Your task to perform on an android device: Open the phone app and click the voicemail tab. Image 0: 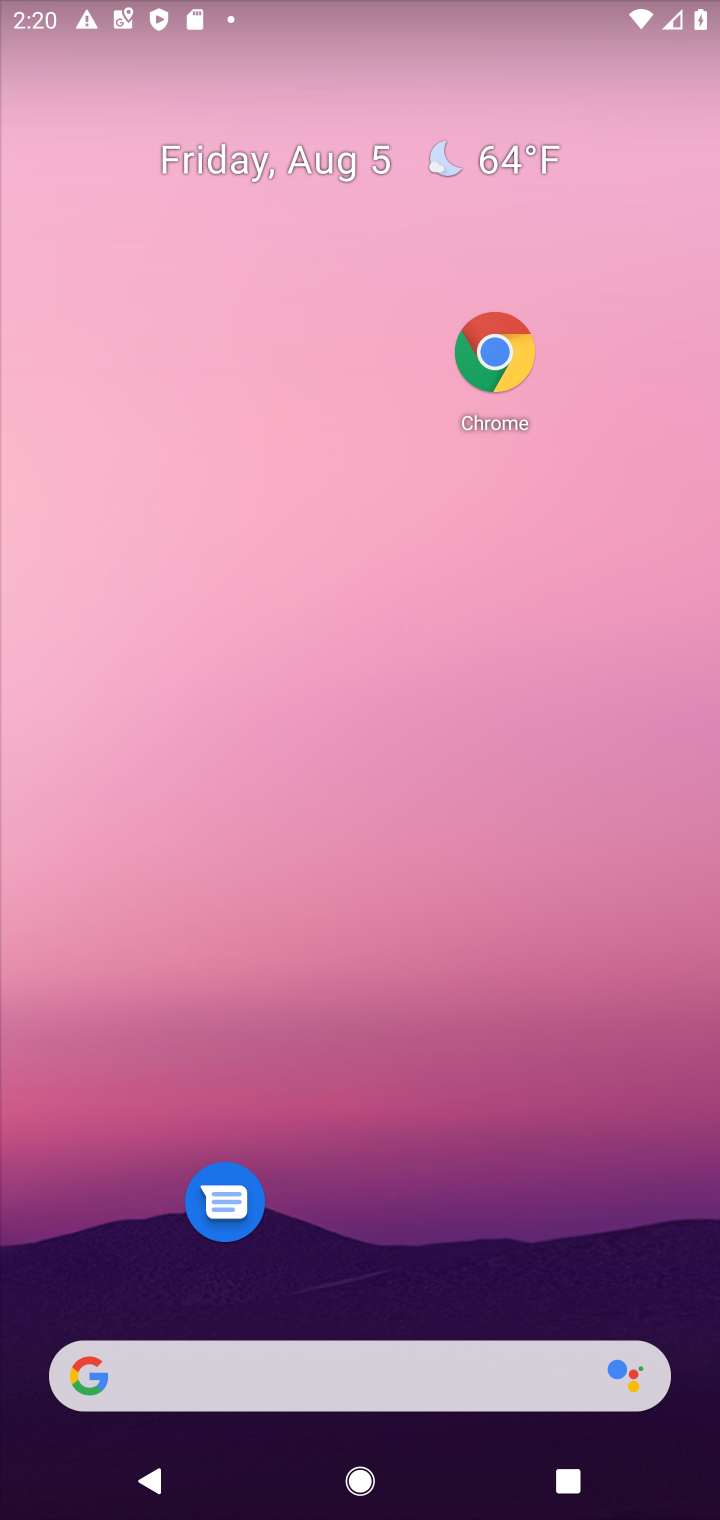
Step 0: press home button
Your task to perform on an android device: Open the phone app and click the voicemail tab. Image 1: 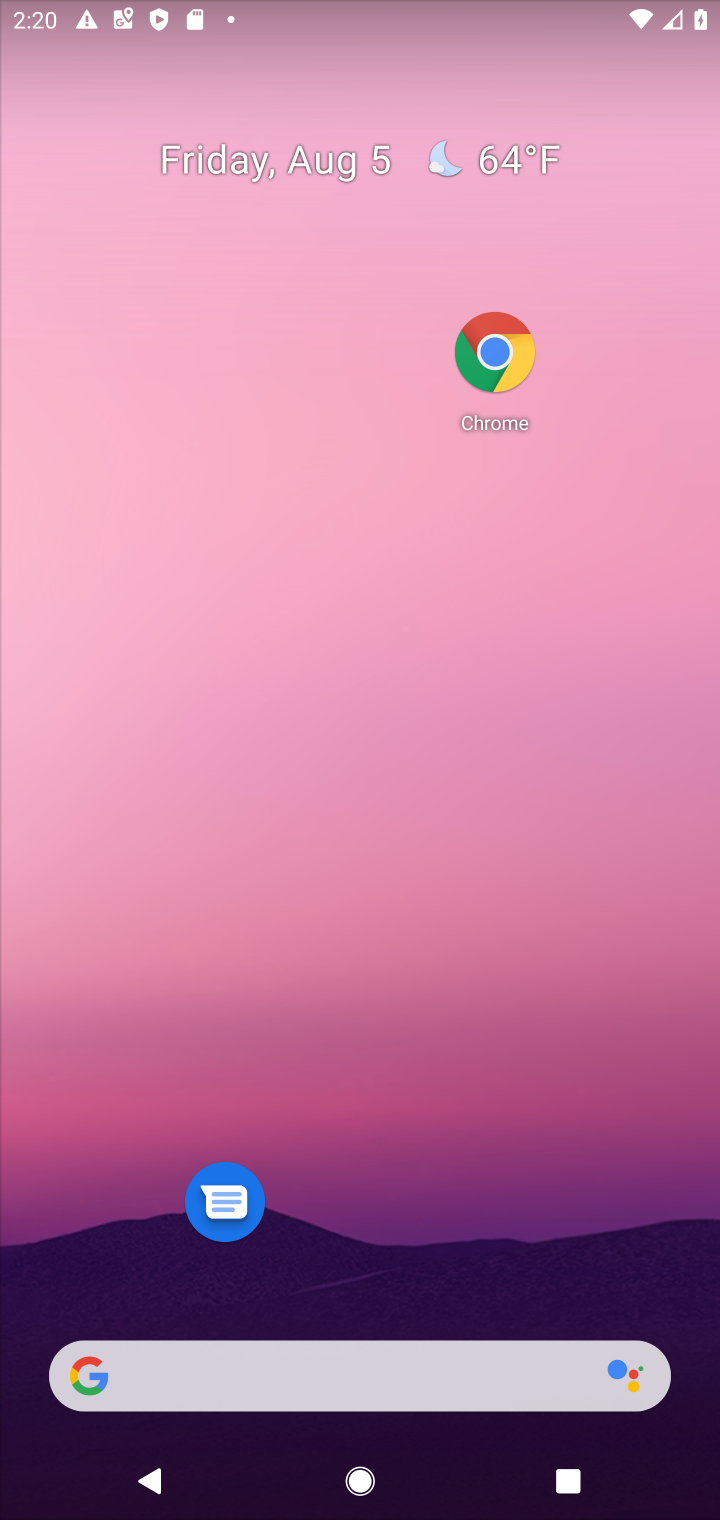
Step 1: drag from (311, 545) to (256, 65)
Your task to perform on an android device: Open the phone app and click the voicemail tab. Image 2: 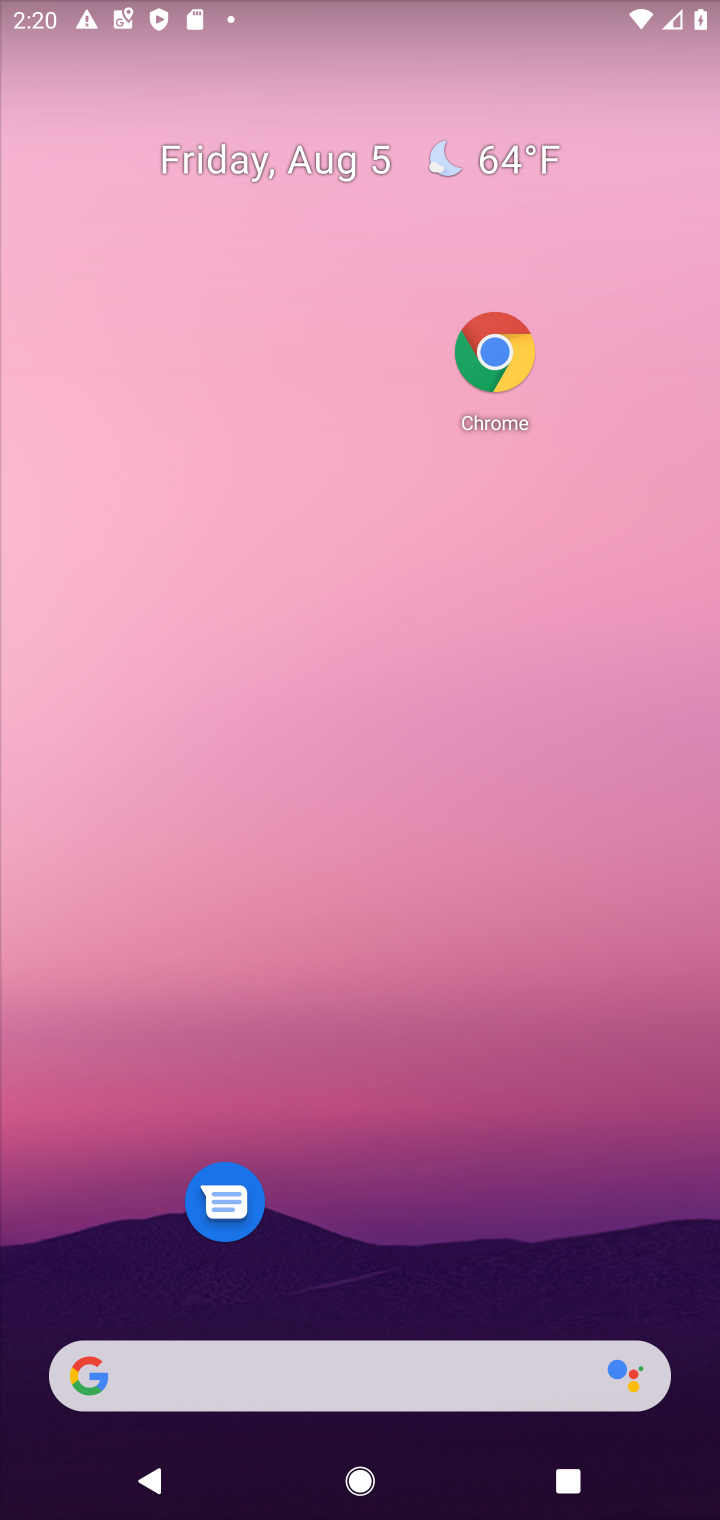
Step 2: click (322, 41)
Your task to perform on an android device: Open the phone app and click the voicemail tab. Image 3: 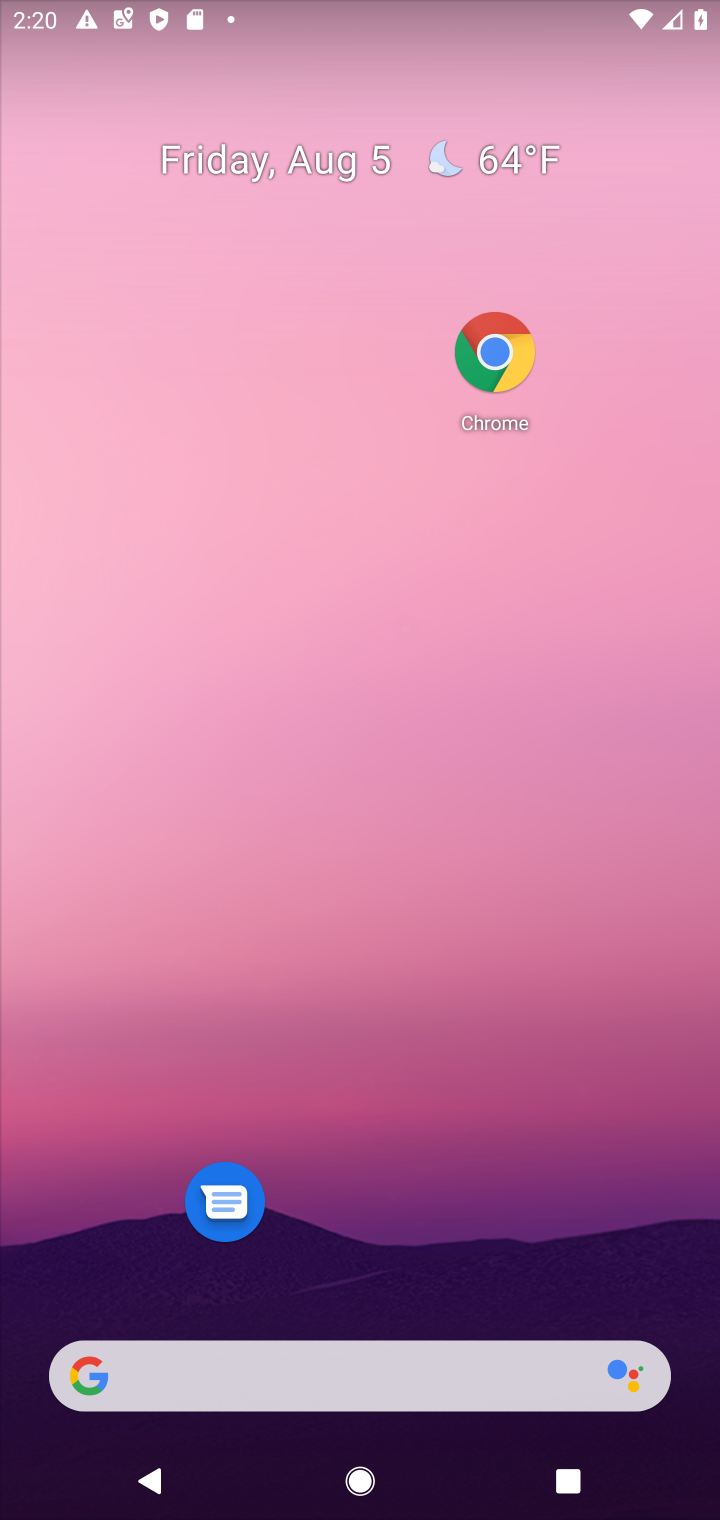
Step 3: drag from (328, 697) to (287, 50)
Your task to perform on an android device: Open the phone app and click the voicemail tab. Image 4: 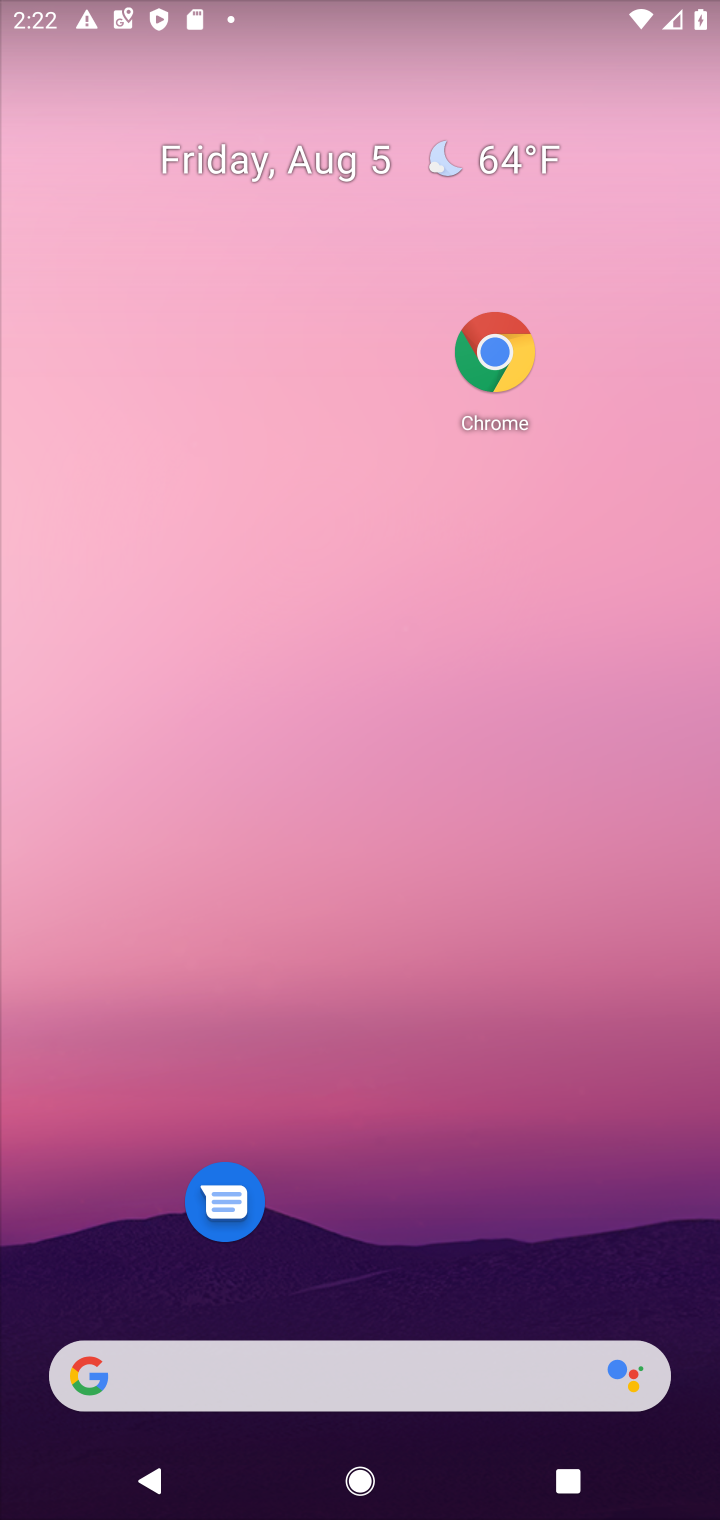
Step 4: drag from (436, 1177) to (275, 14)
Your task to perform on an android device: Open the phone app and click the voicemail tab. Image 5: 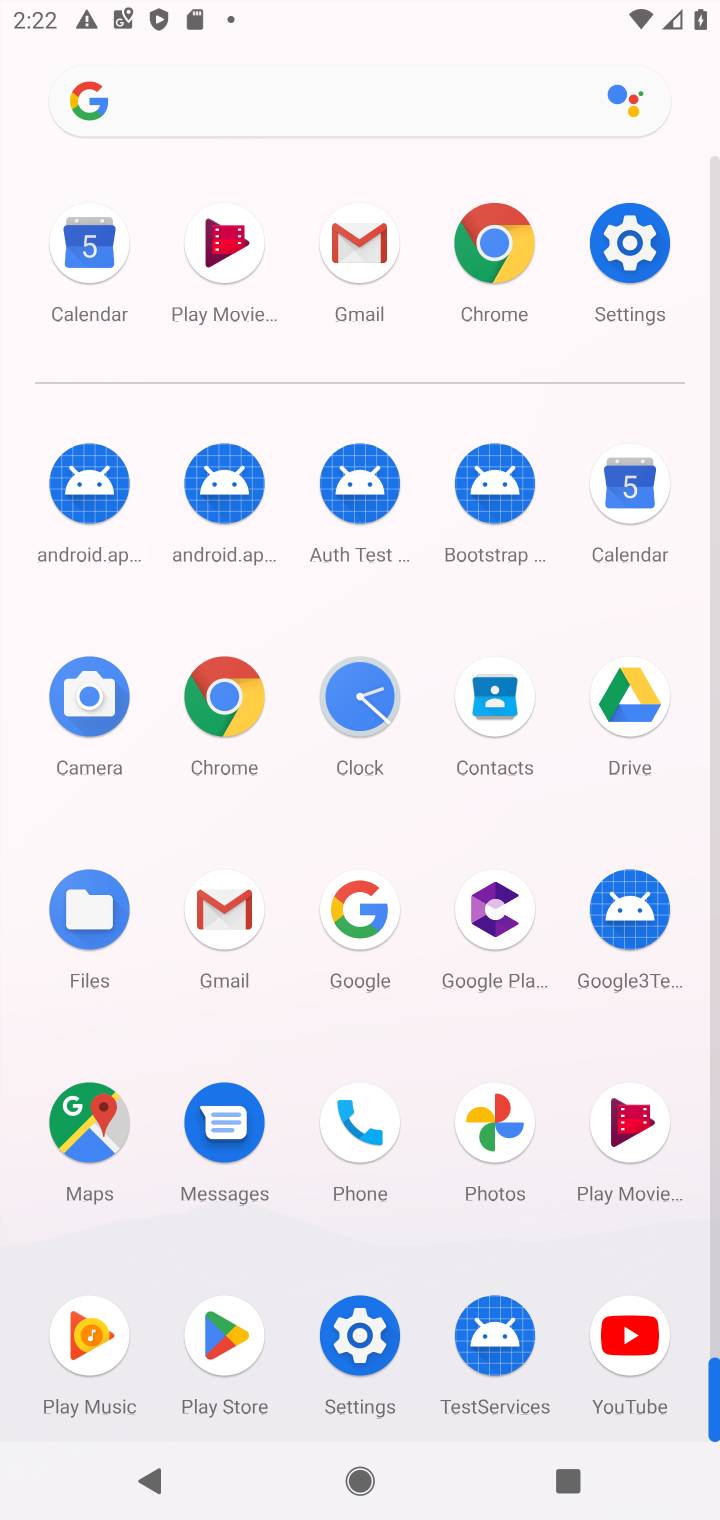
Step 5: click (358, 1129)
Your task to perform on an android device: Open the phone app and click the voicemail tab. Image 6: 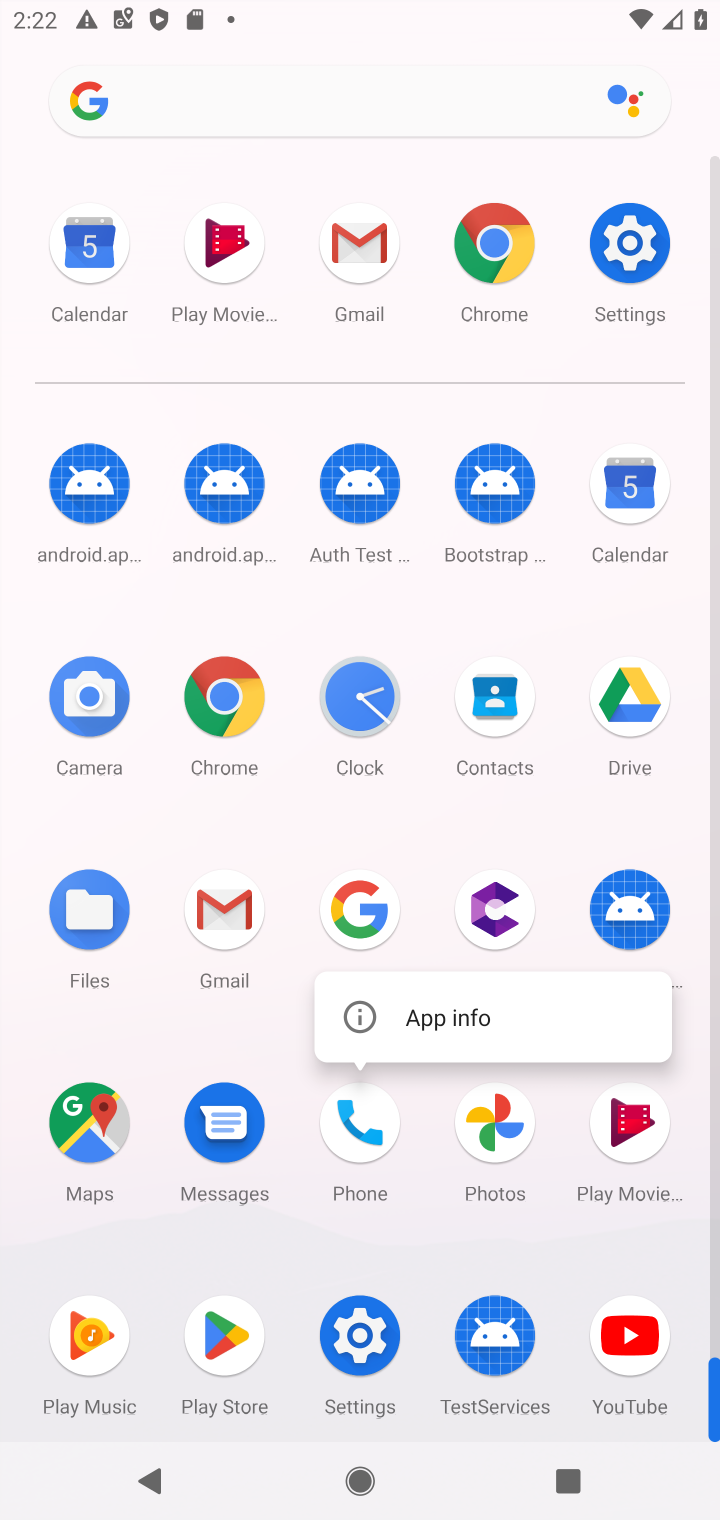
Step 6: click (369, 1120)
Your task to perform on an android device: Open the phone app and click the voicemail tab. Image 7: 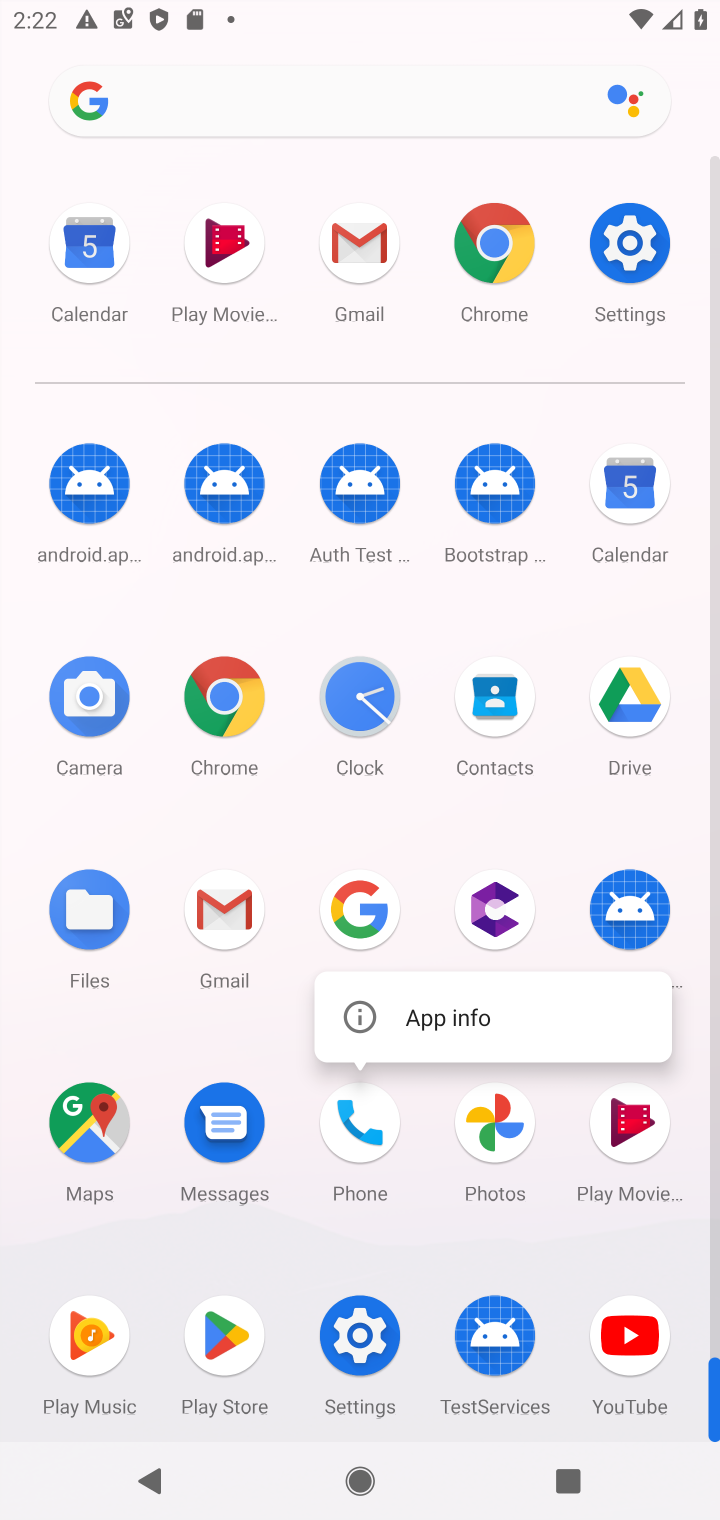
Step 7: click (356, 1117)
Your task to perform on an android device: Open the phone app and click the voicemail tab. Image 8: 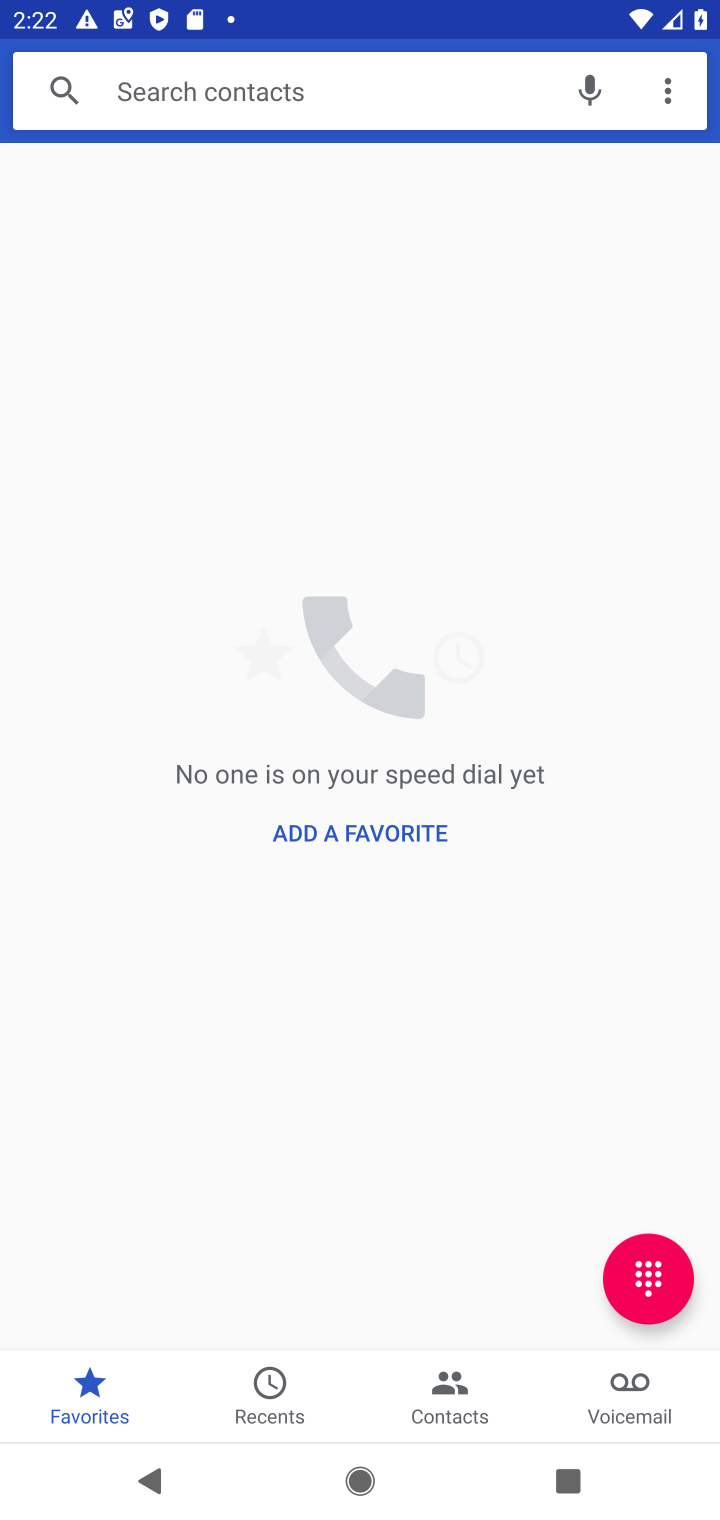
Step 8: click (640, 1371)
Your task to perform on an android device: Open the phone app and click the voicemail tab. Image 9: 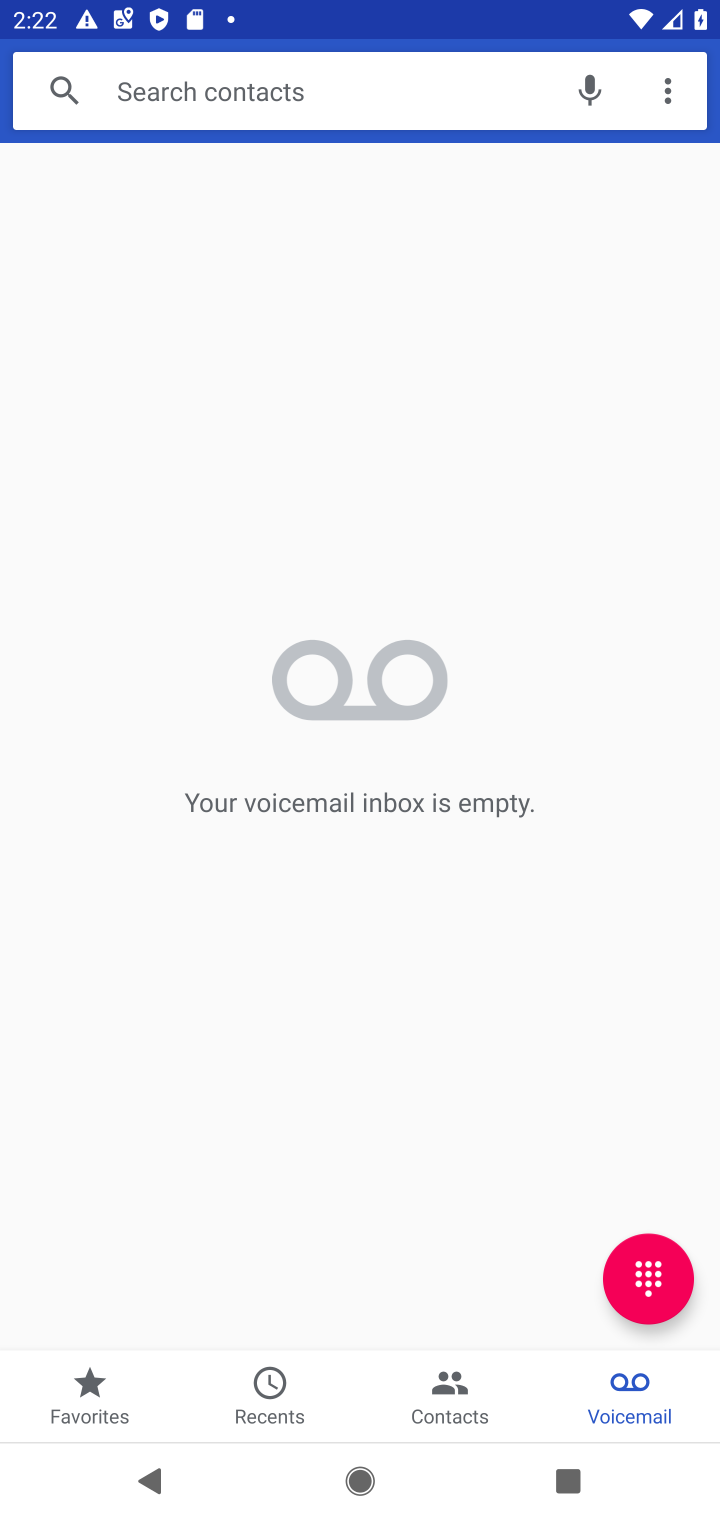
Step 9: click (602, 1372)
Your task to perform on an android device: Open the phone app and click the voicemail tab. Image 10: 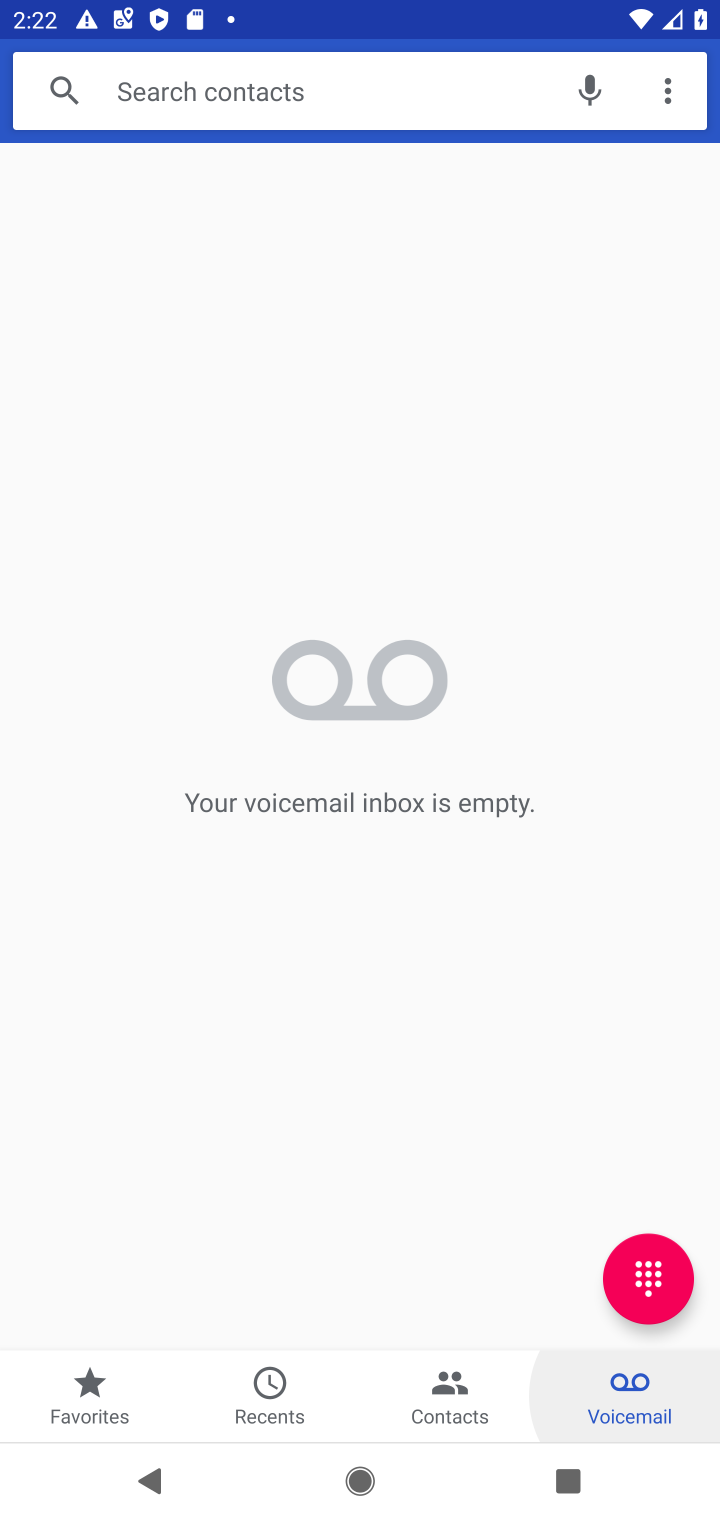
Step 10: task complete